Your task to perform on an android device: Open notification settings Image 0: 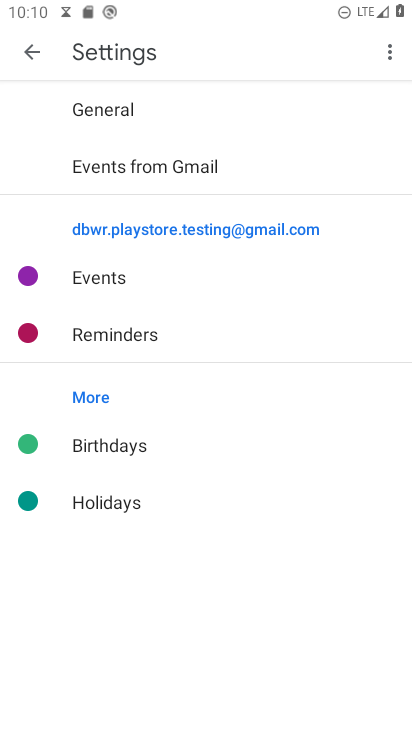
Step 0: press home button
Your task to perform on an android device: Open notification settings Image 1: 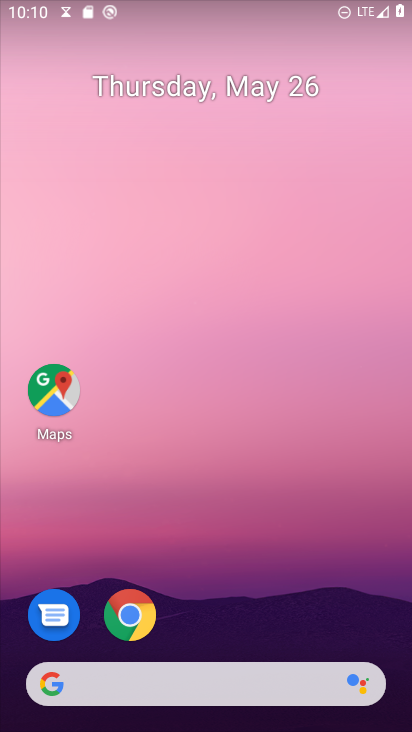
Step 1: click (324, 577)
Your task to perform on an android device: Open notification settings Image 2: 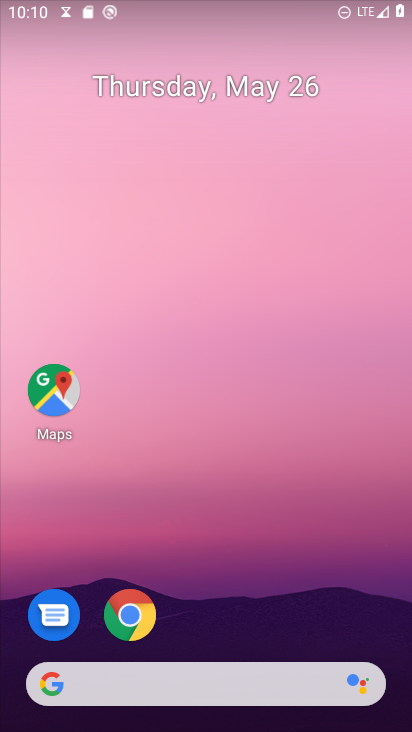
Step 2: drag from (200, 655) to (199, 282)
Your task to perform on an android device: Open notification settings Image 3: 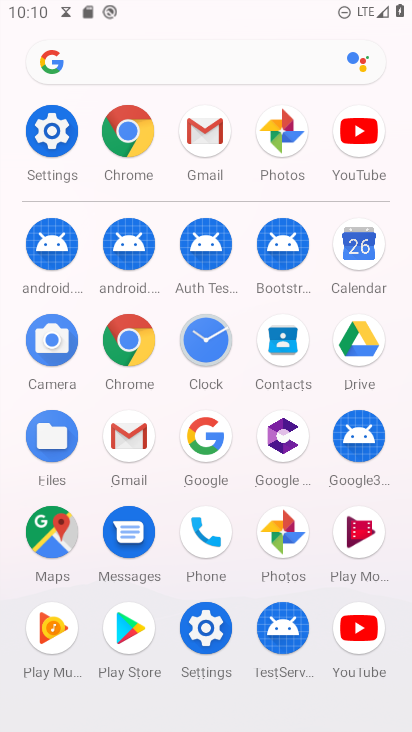
Step 3: click (48, 125)
Your task to perform on an android device: Open notification settings Image 4: 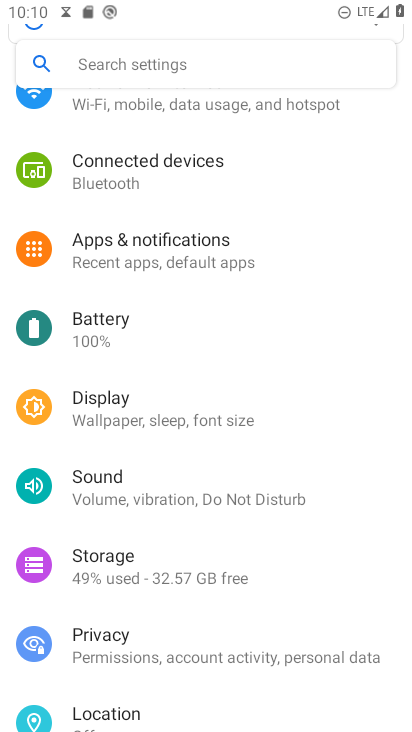
Step 4: click (142, 239)
Your task to perform on an android device: Open notification settings Image 5: 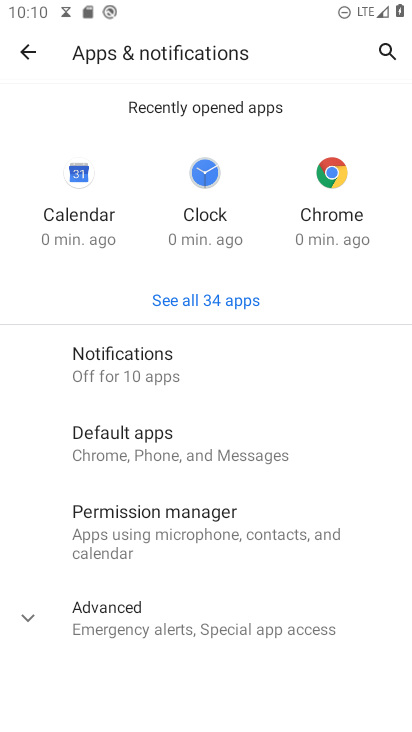
Step 5: click (141, 350)
Your task to perform on an android device: Open notification settings Image 6: 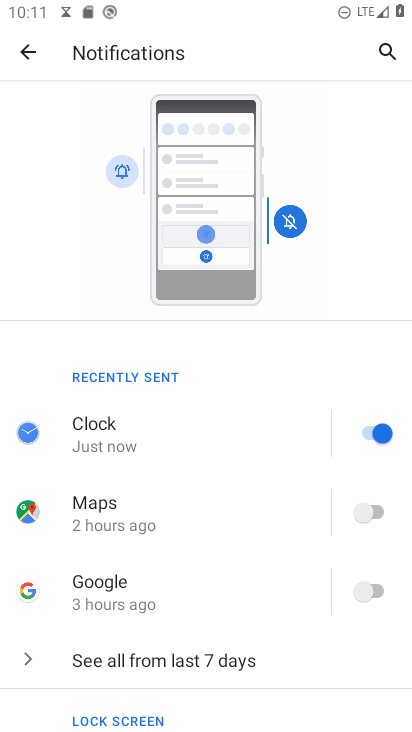
Step 6: task complete